Your task to perform on an android device: search for starred emails in the gmail app Image 0: 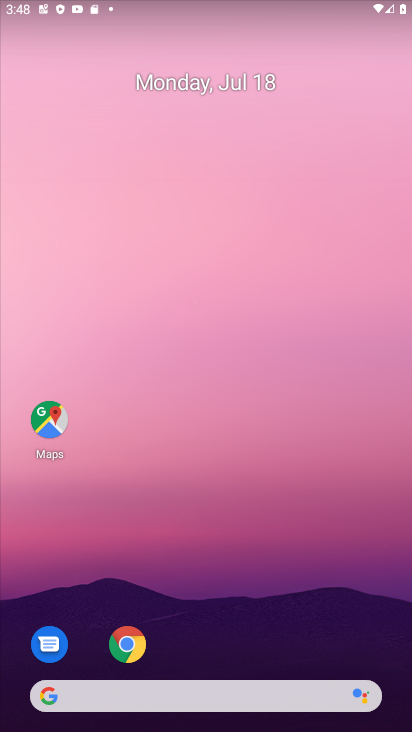
Step 0: drag from (390, 664) to (323, 136)
Your task to perform on an android device: search for starred emails in the gmail app Image 1: 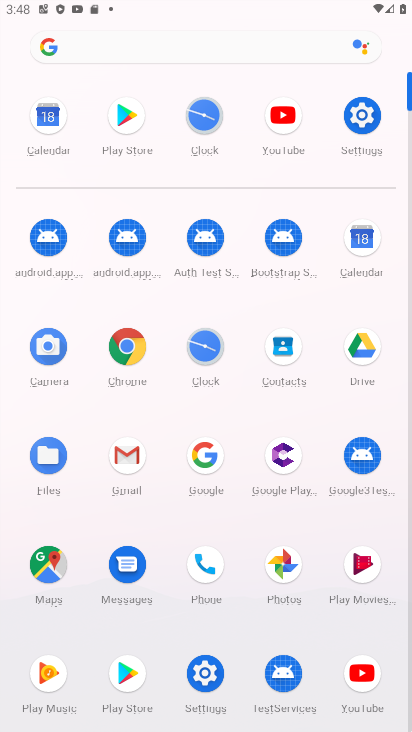
Step 1: click (127, 453)
Your task to perform on an android device: search for starred emails in the gmail app Image 2: 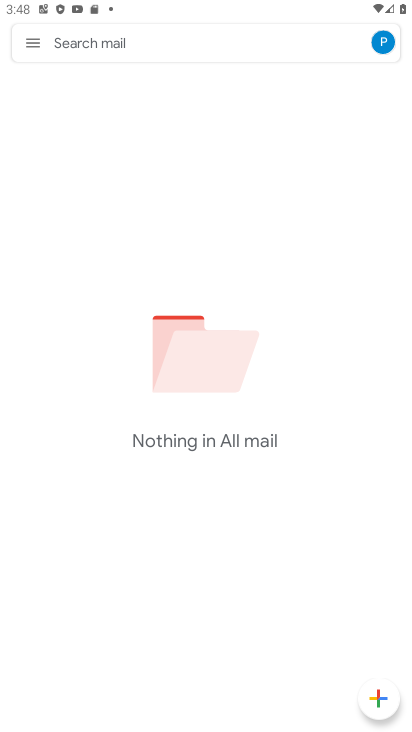
Step 2: click (33, 48)
Your task to perform on an android device: search for starred emails in the gmail app Image 3: 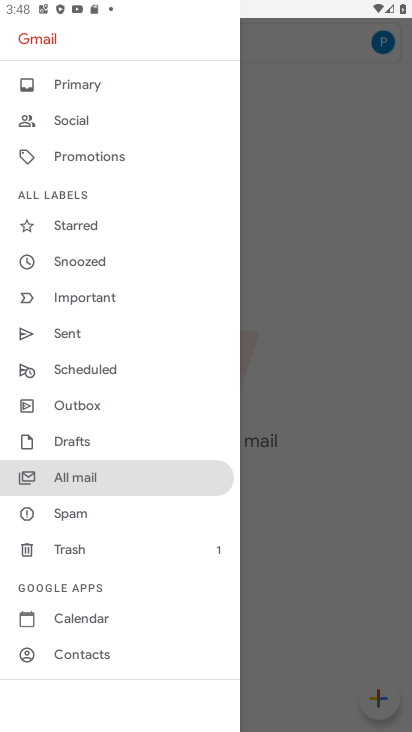
Step 3: click (70, 225)
Your task to perform on an android device: search for starred emails in the gmail app Image 4: 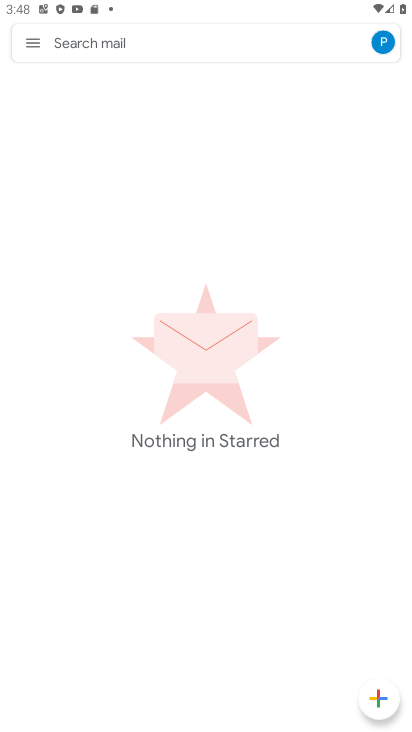
Step 4: task complete